Your task to perform on an android device: see creations saved in the google photos Image 0: 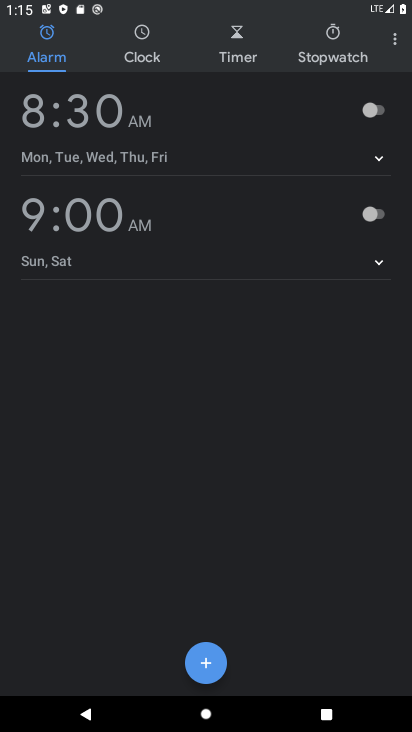
Step 0: press home button
Your task to perform on an android device: see creations saved in the google photos Image 1: 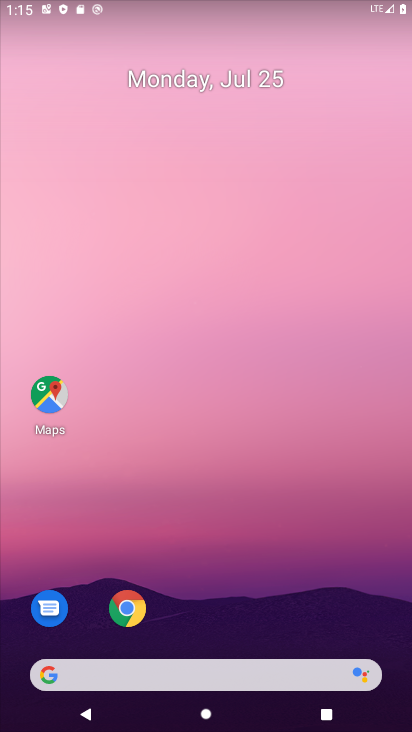
Step 1: drag from (250, 662) to (247, 3)
Your task to perform on an android device: see creations saved in the google photos Image 2: 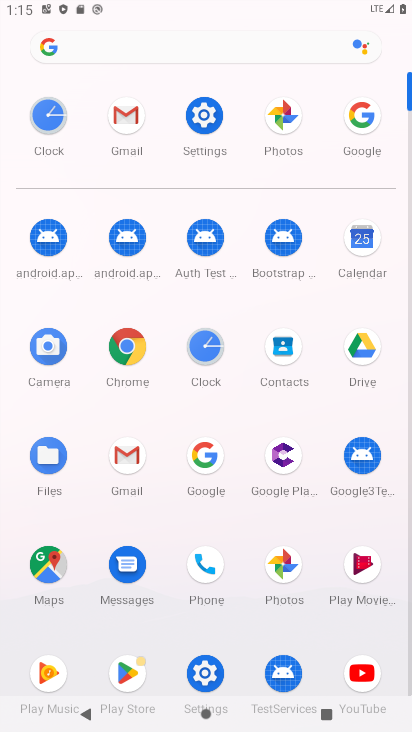
Step 2: click (278, 129)
Your task to perform on an android device: see creations saved in the google photos Image 3: 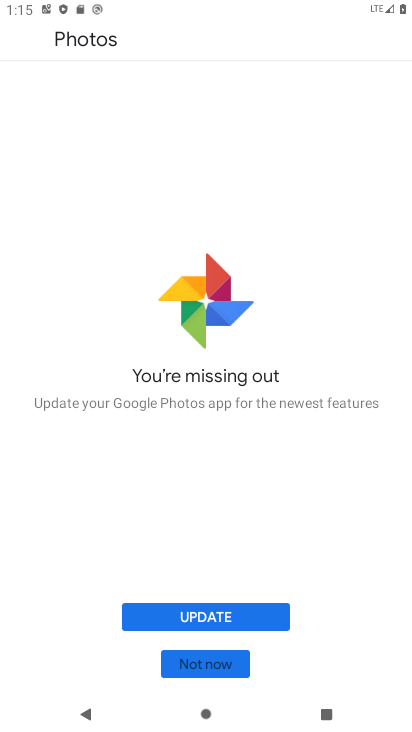
Step 3: click (187, 660)
Your task to perform on an android device: see creations saved in the google photos Image 4: 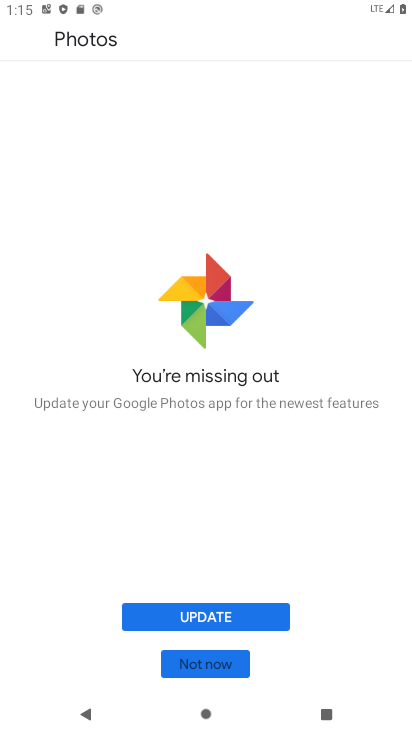
Step 4: click (235, 667)
Your task to perform on an android device: see creations saved in the google photos Image 5: 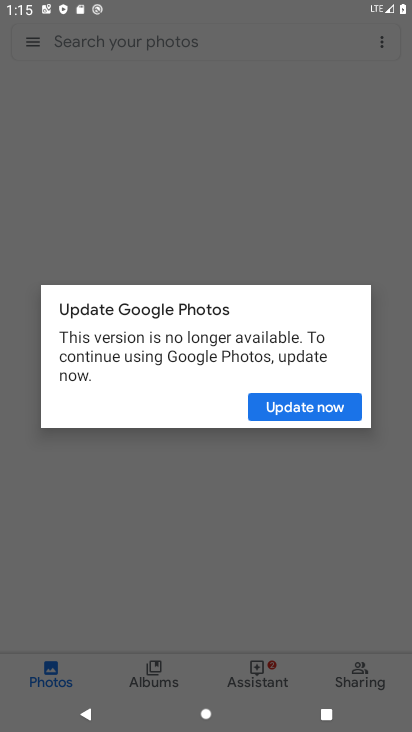
Step 5: click (287, 388)
Your task to perform on an android device: see creations saved in the google photos Image 6: 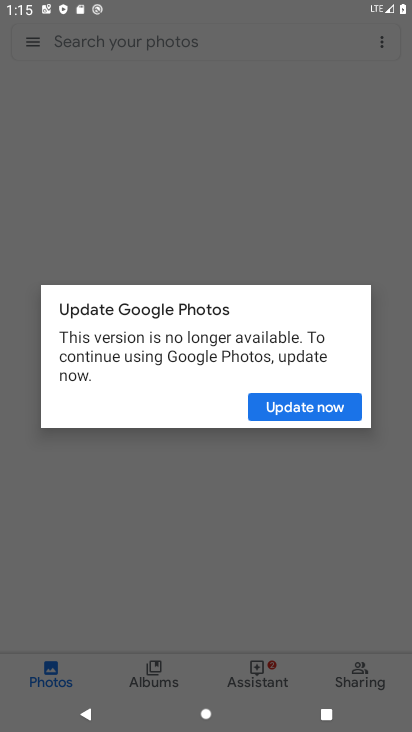
Step 6: click (281, 405)
Your task to perform on an android device: see creations saved in the google photos Image 7: 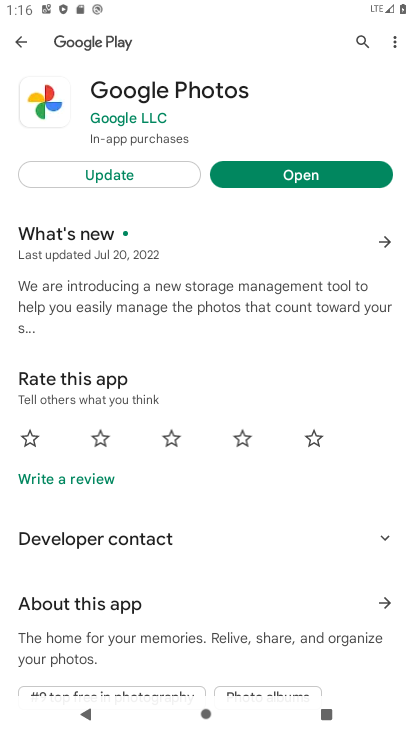
Step 7: click (302, 174)
Your task to perform on an android device: see creations saved in the google photos Image 8: 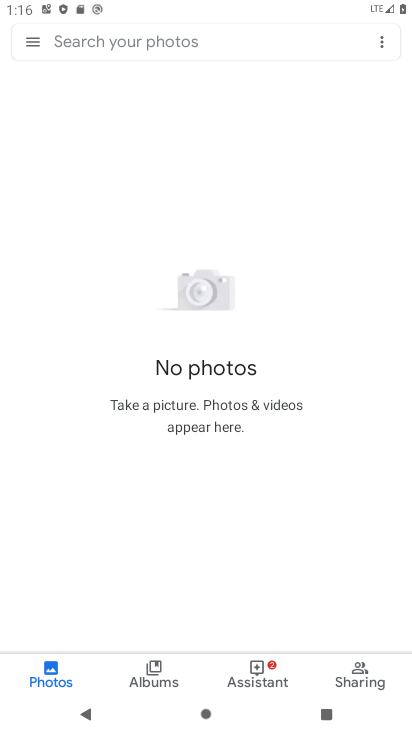
Step 8: click (85, 39)
Your task to perform on an android device: see creations saved in the google photos Image 9: 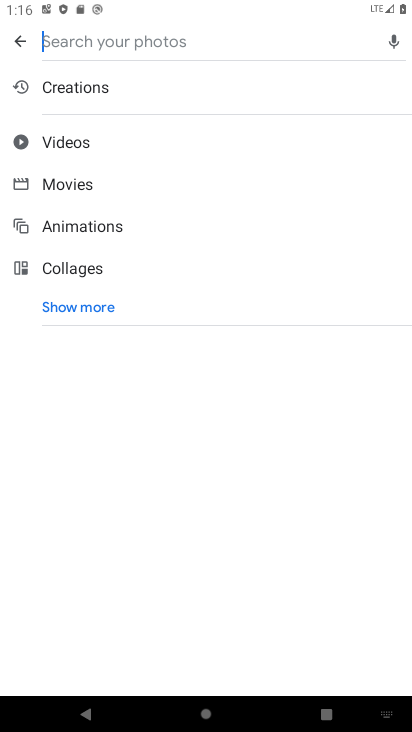
Step 9: click (83, 92)
Your task to perform on an android device: see creations saved in the google photos Image 10: 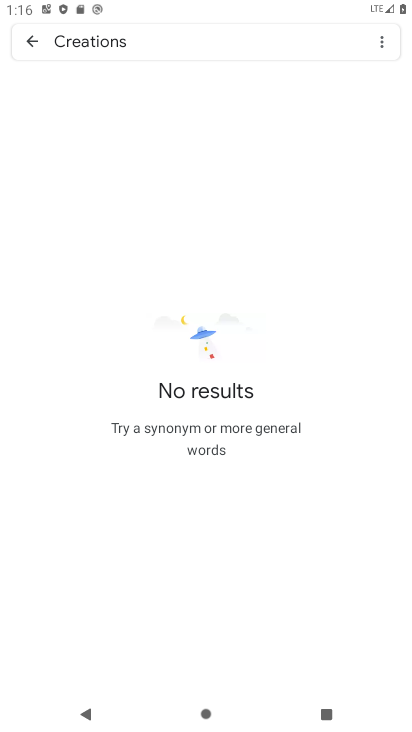
Step 10: task complete